Your task to perform on an android device: Search for sushi restaurants on Maps Image 0: 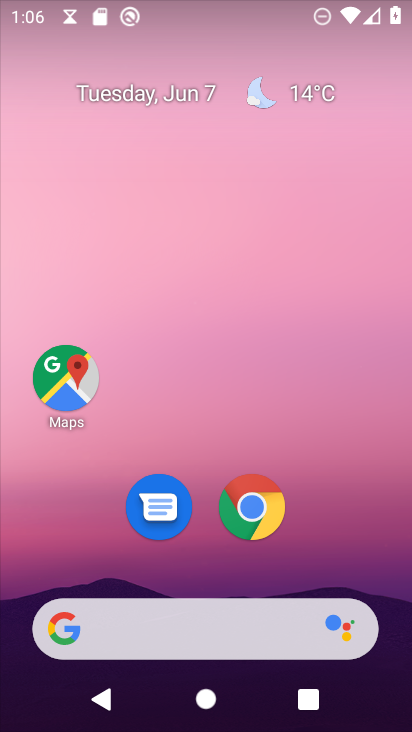
Step 0: click (76, 374)
Your task to perform on an android device: Search for sushi restaurants on Maps Image 1: 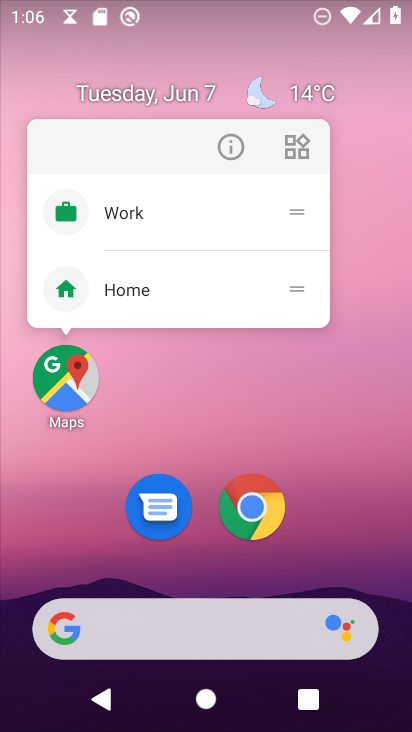
Step 1: click (76, 375)
Your task to perform on an android device: Search for sushi restaurants on Maps Image 2: 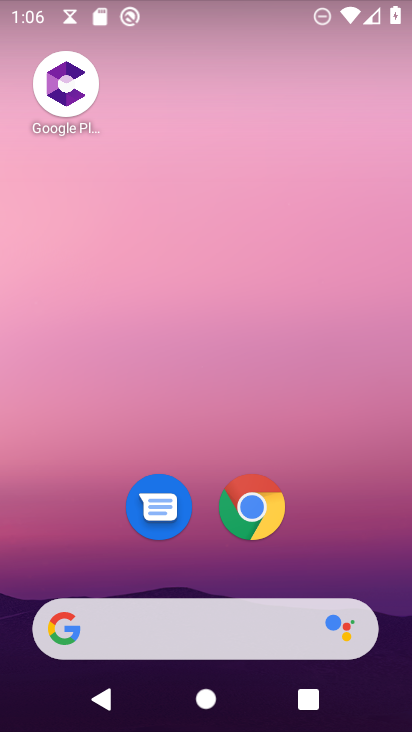
Step 2: click (330, 42)
Your task to perform on an android device: Search for sushi restaurants on Maps Image 3: 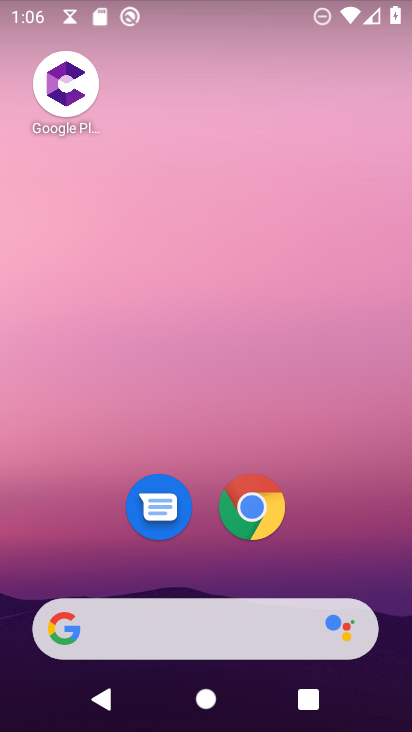
Step 3: drag from (310, 546) to (327, 3)
Your task to perform on an android device: Search for sushi restaurants on Maps Image 4: 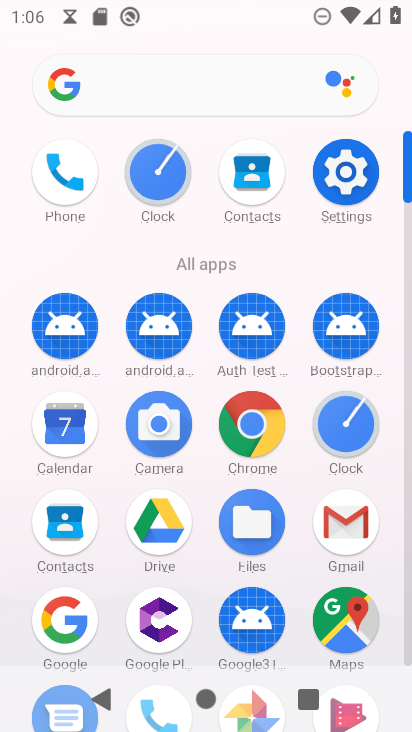
Step 4: click (346, 633)
Your task to perform on an android device: Search for sushi restaurants on Maps Image 5: 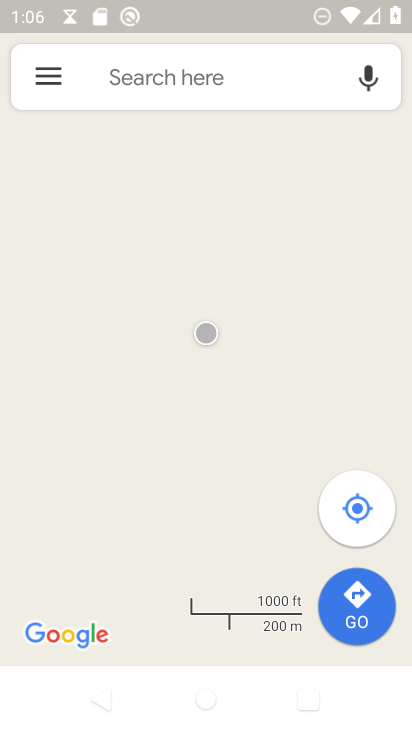
Step 5: click (200, 67)
Your task to perform on an android device: Search for sushi restaurants on Maps Image 6: 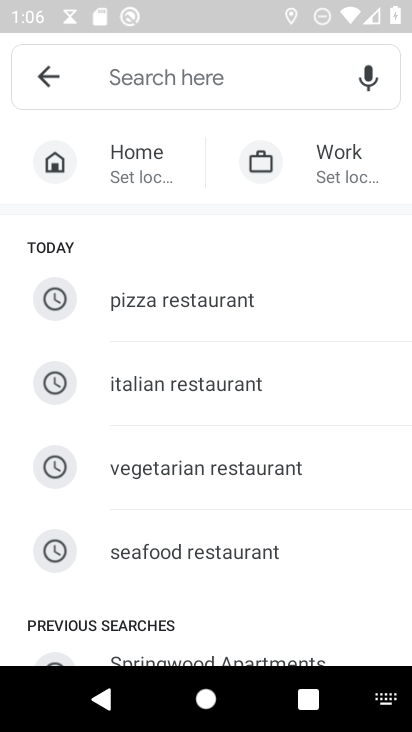
Step 6: type "sushi restaurants"
Your task to perform on an android device: Search for sushi restaurants on Maps Image 7: 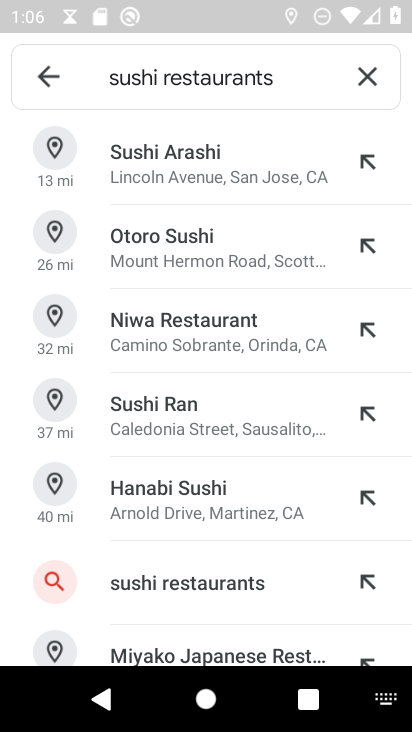
Step 7: click (150, 616)
Your task to perform on an android device: Search for sushi restaurants on Maps Image 8: 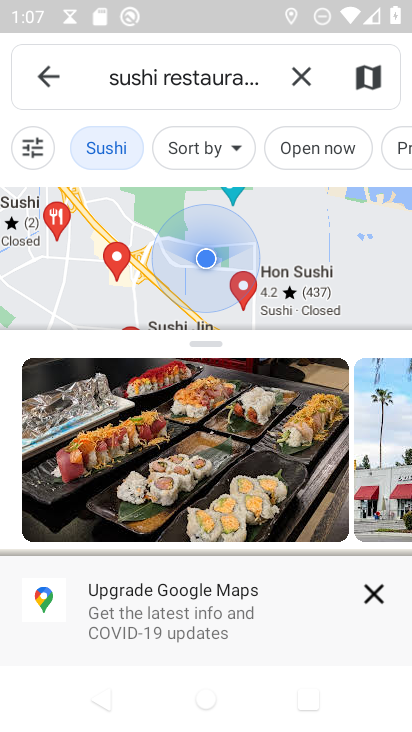
Step 8: task complete